Your task to perform on an android device: search for starred emails in the gmail app Image 0: 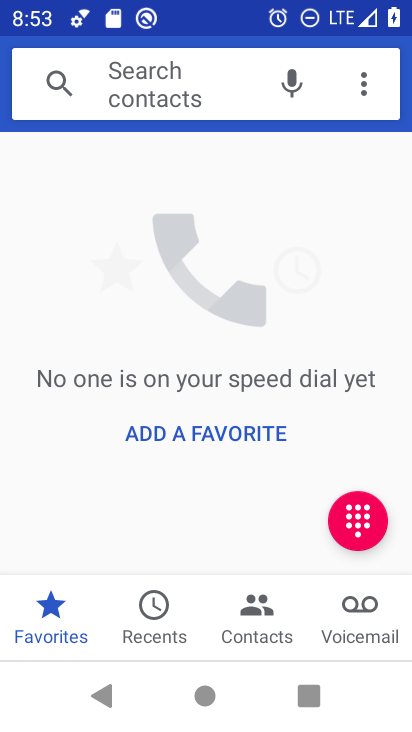
Step 0: press home button
Your task to perform on an android device: search for starred emails in the gmail app Image 1: 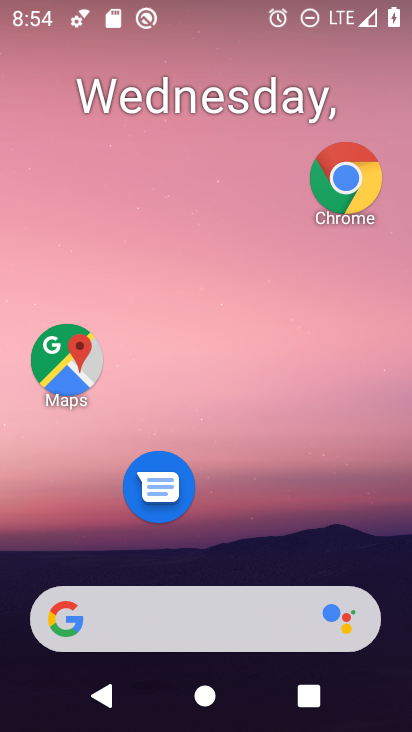
Step 1: drag from (268, 602) to (271, 75)
Your task to perform on an android device: search for starred emails in the gmail app Image 2: 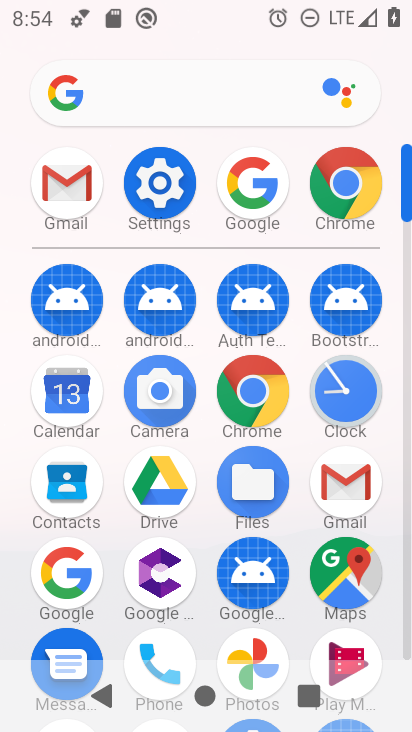
Step 2: click (353, 489)
Your task to perform on an android device: search for starred emails in the gmail app Image 3: 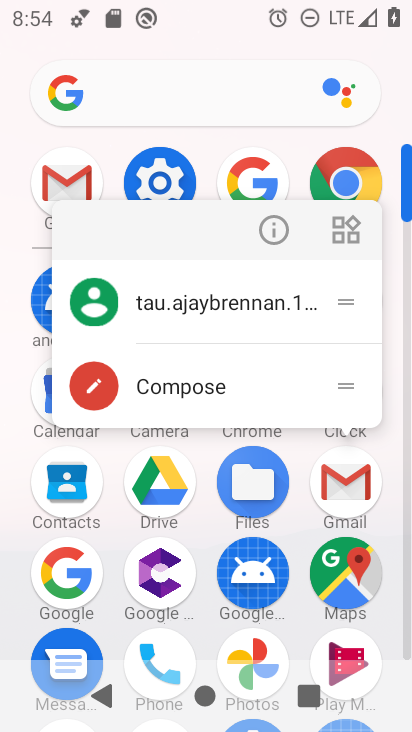
Step 3: click (348, 497)
Your task to perform on an android device: search for starred emails in the gmail app Image 4: 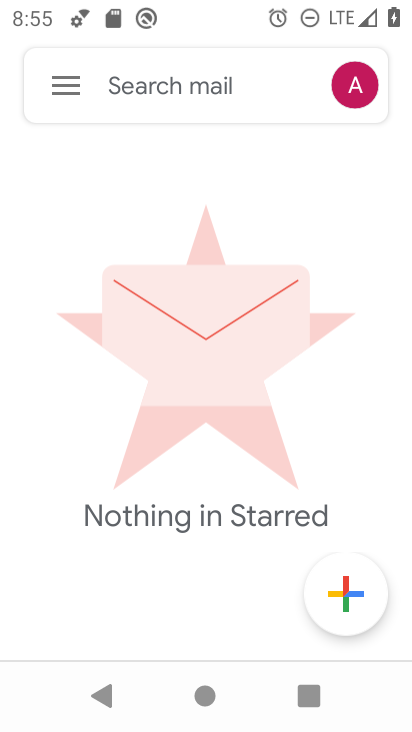
Step 4: click (72, 93)
Your task to perform on an android device: search for starred emails in the gmail app Image 5: 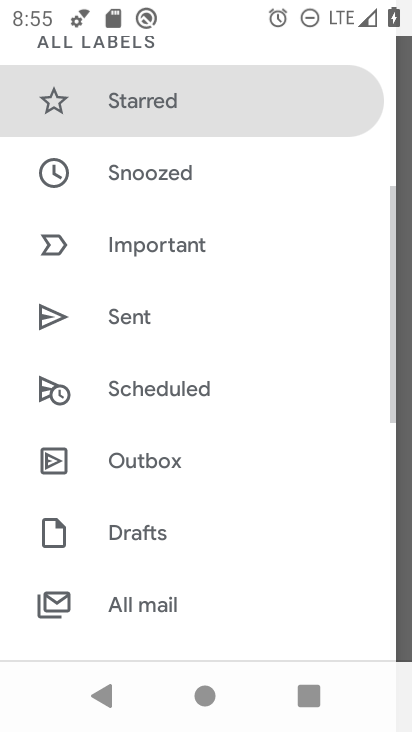
Step 5: click (134, 115)
Your task to perform on an android device: search for starred emails in the gmail app Image 6: 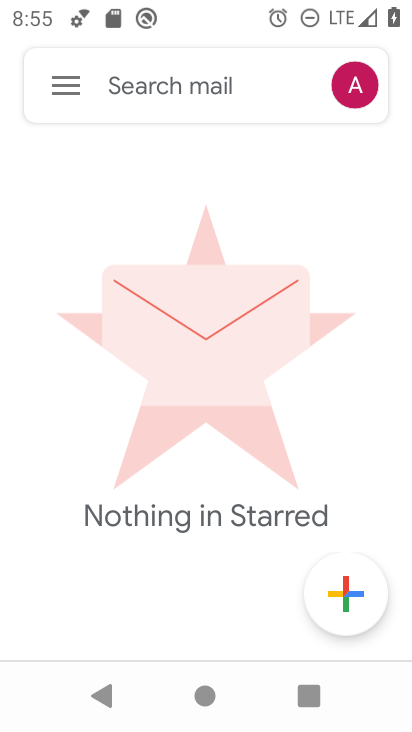
Step 6: task complete